Your task to perform on an android device: Open location settings Image 0: 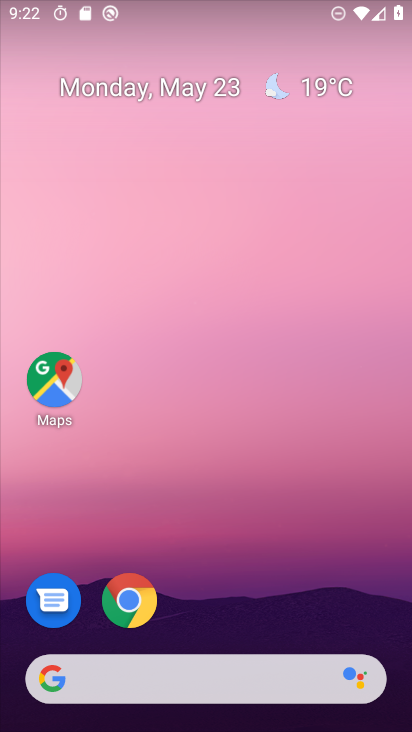
Step 0: press home button
Your task to perform on an android device: Open location settings Image 1: 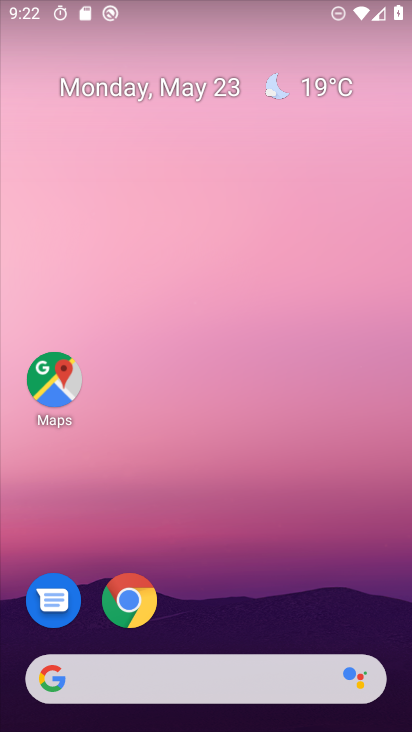
Step 1: drag from (38, 543) to (275, 115)
Your task to perform on an android device: Open location settings Image 2: 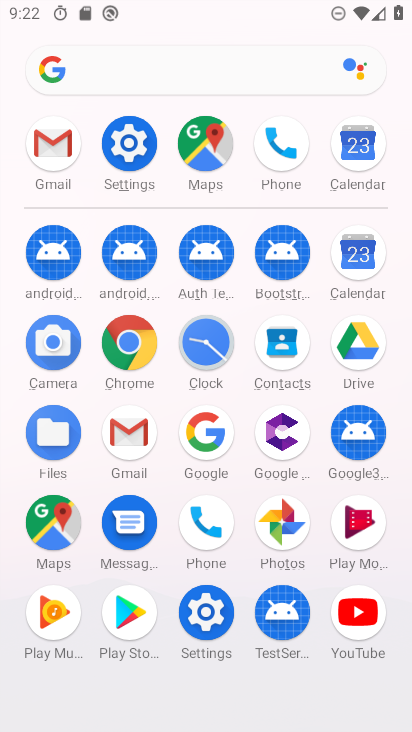
Step 2: click (132, 157)
Your task to perform on an android device: Open location settings Image 3: 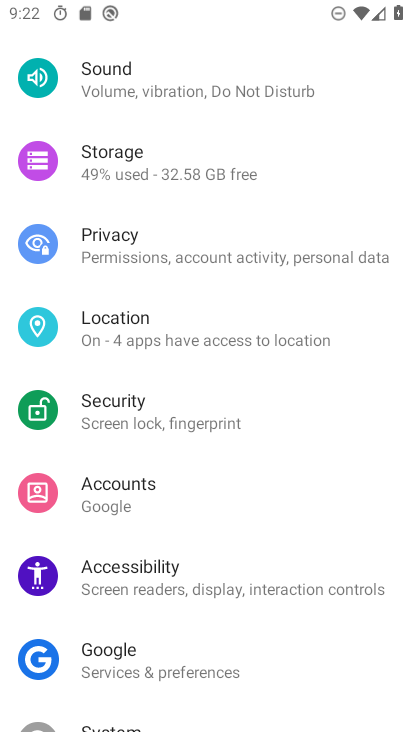
Step 3: click (131, 323)
Your task to perform on an android device: Open location settings Image 4: 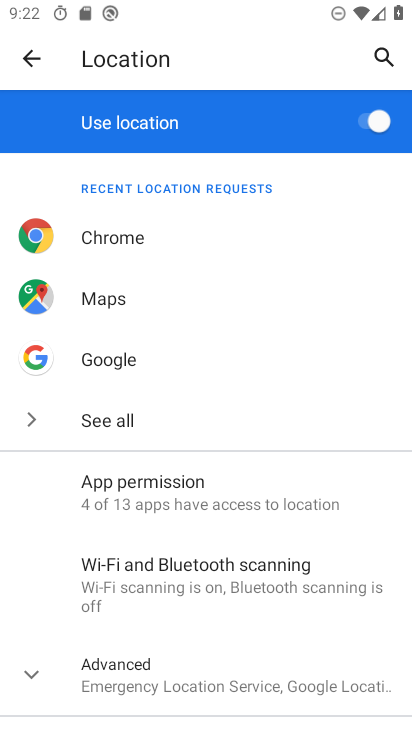
Step 4: click (27, 674)
Your task to perform on an android device: Open location settings Image 5: 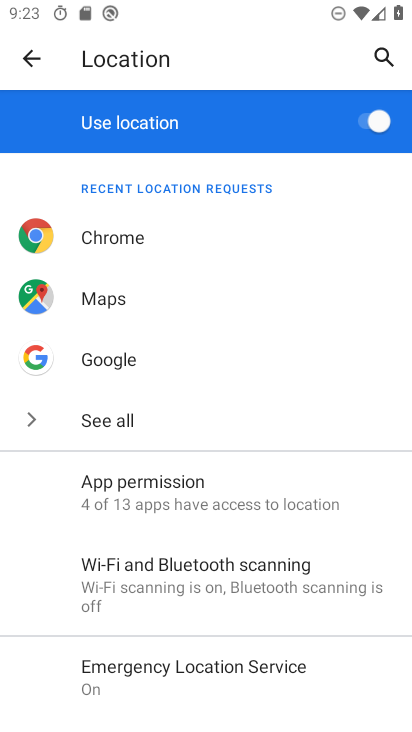
Step 5: task complete